Your task to perform on an android device: Go to network settings Image 0: 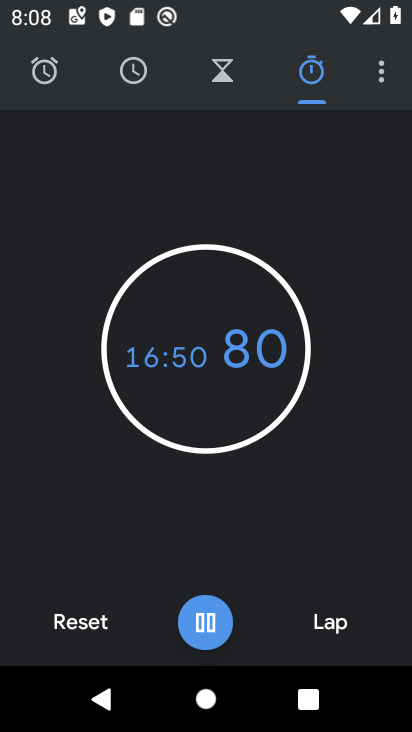
Step 0: press back button
Your task to perform on an android device: Go to network settings Image 1: 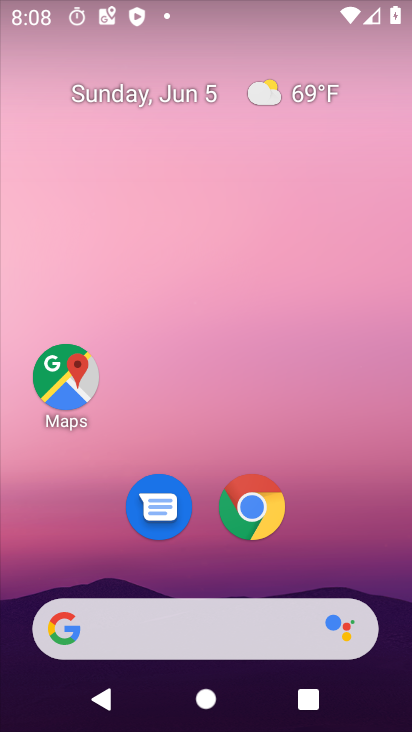
Step 1: drag from (341, 530) to (273, 13)
Your task to perform on an android device: Go to network settings Image 2: 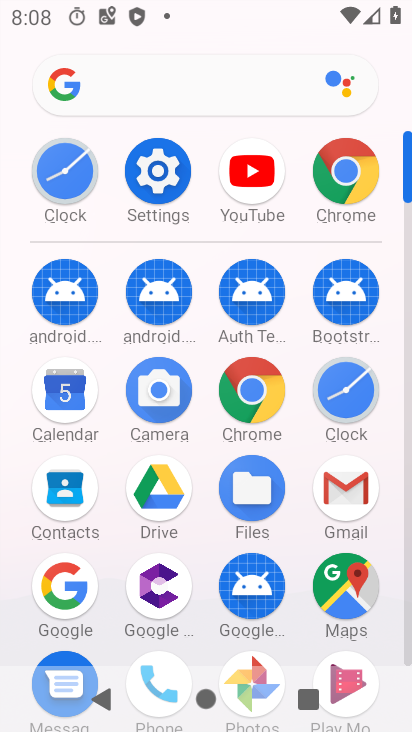
Step 2: click (158, 172)
Your task to perform on an android device: Go to network settings Image 3: 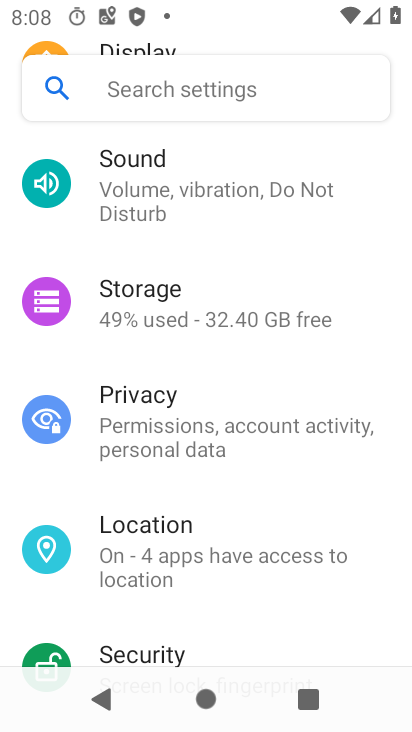
Step 3: drag from (311, 234) to (306, 627)
Your task to perform on an android device: Go to network settings Image 4: 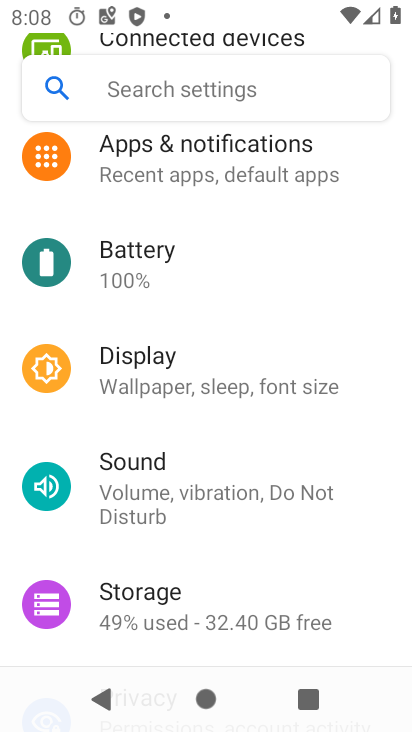
Step 4: drag from (319, 204) to (318, 605)
Your task to perform on an android device: Go to network settings Image 5: 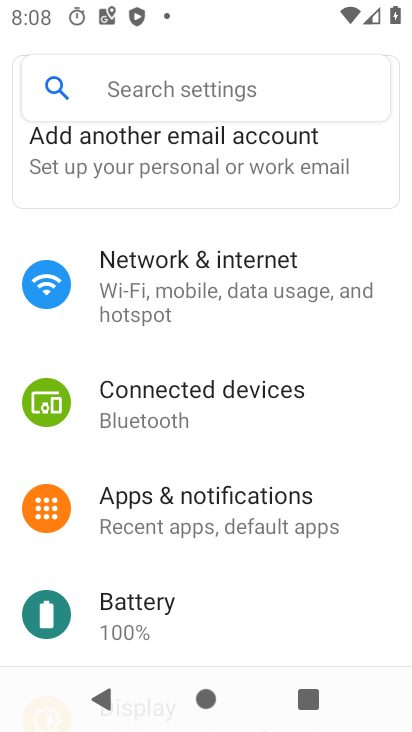
Step 5: click (207, 272)
Your task to perform on an android device: Go to network settings Image 6: 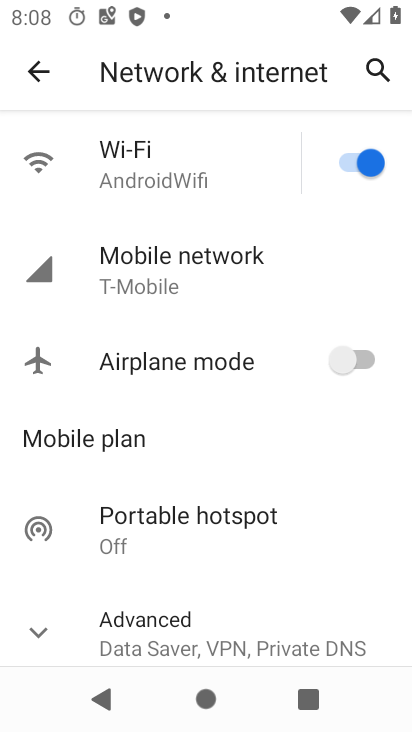
Step 6: drag from (222, 580) to (209, 186)
Your task to perform on an android device: Go to network settings Image 7: 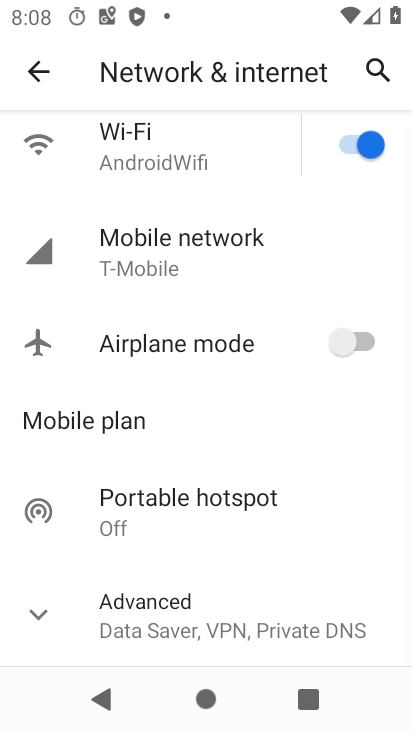
Step 7: click (29, 612)
Your task to perform on an android device: Go to network settings Image 8: 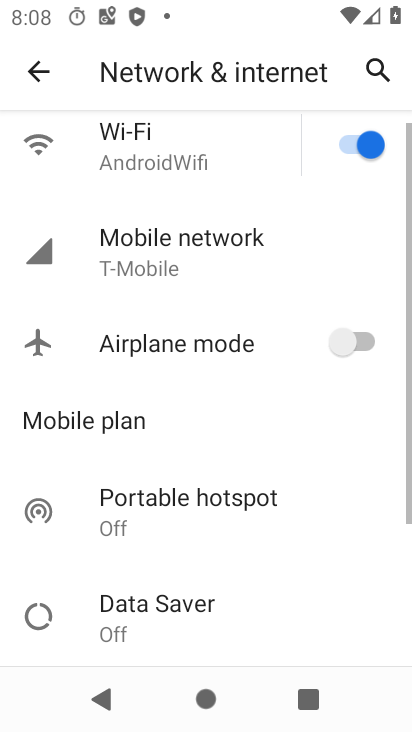
Step 8: task complete